Your task to perform on an android device: refresh tabs in the chrome app Image 0: 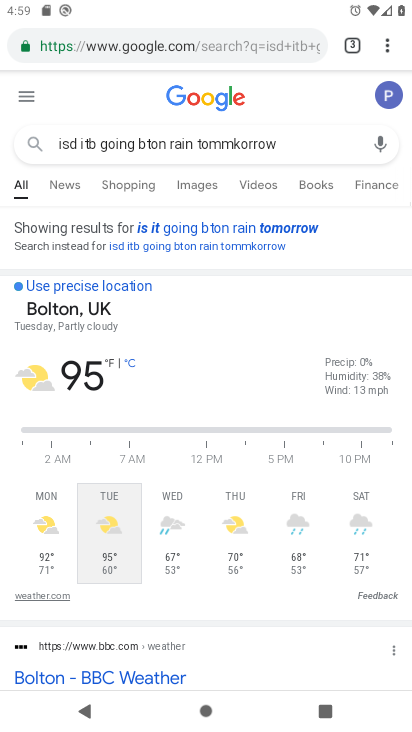
Step 0: drag from (186, 542) to (76, 222)
Your task to perform on an android device: refresh tabs in the chrome app Image 1: 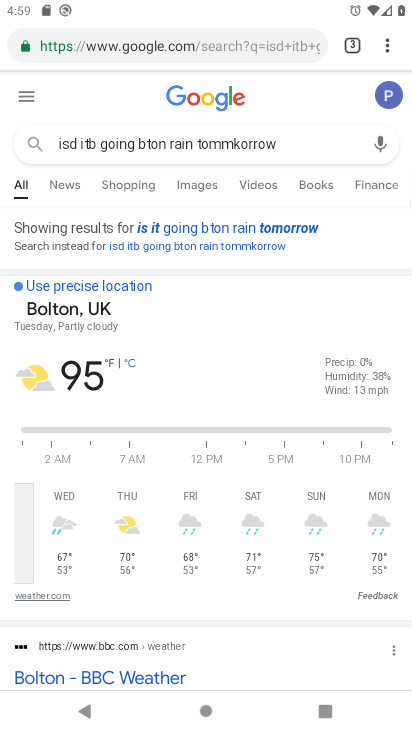
Step 1: click (388, 43)
Your task to perform on an android device: refresh tabs in the chrome app Image 2: 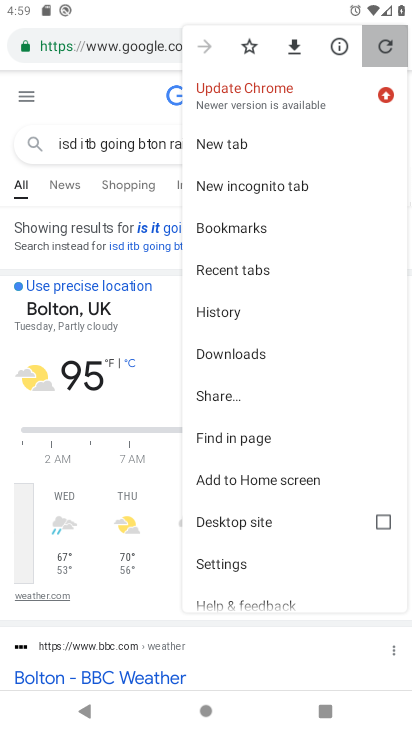
Step 2: click (382, 48)
Your task to perform on an android device: refresh tabs in the chrome app Image 3: 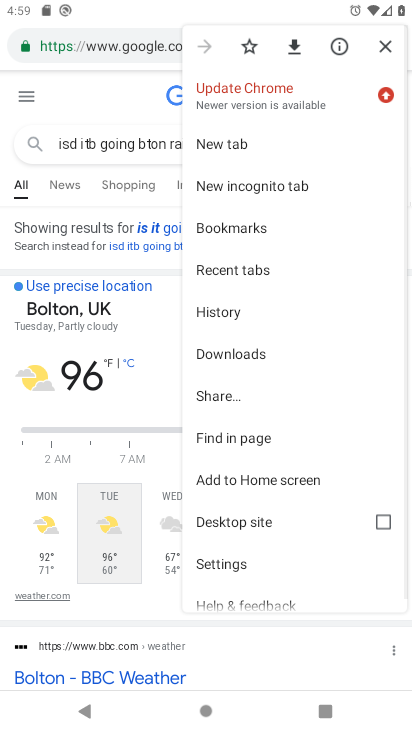
Step 3: task complete